Your task to perform on an android device: turn on improve location accuracy Image 0: 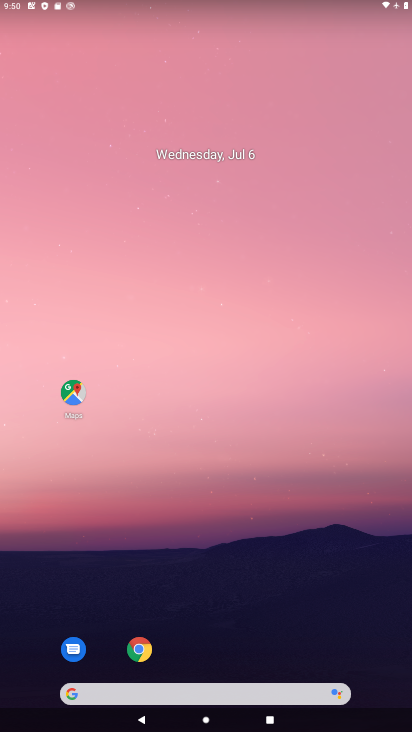
Step 0: drag from (381, 711) to (272, 119)
Your task to perform on an android device: turn on improve location accuracy Image 1: 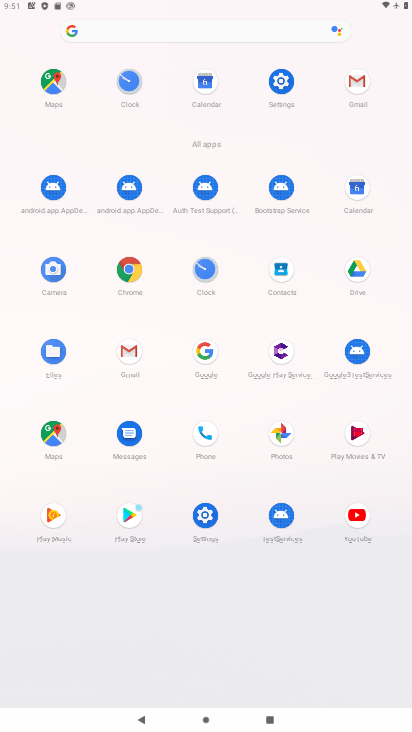
Step 1: click (286, 69)
Your task to perform on an android device: turn on improve location accuracy Image 2: 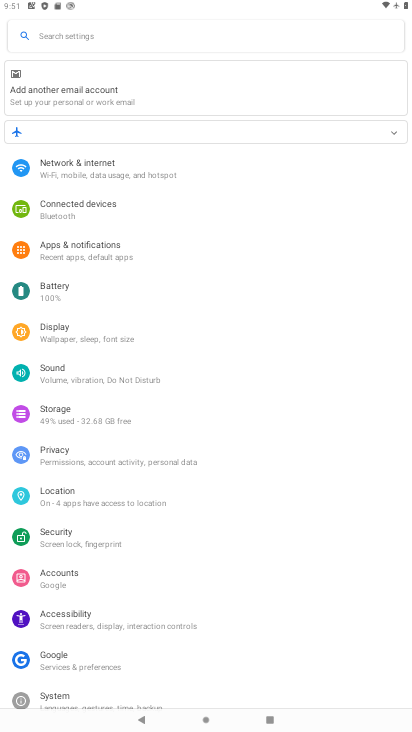
Step 2: click (59, 489)
Your task to perform on an android device: turn on improve location accuracy Image 3: 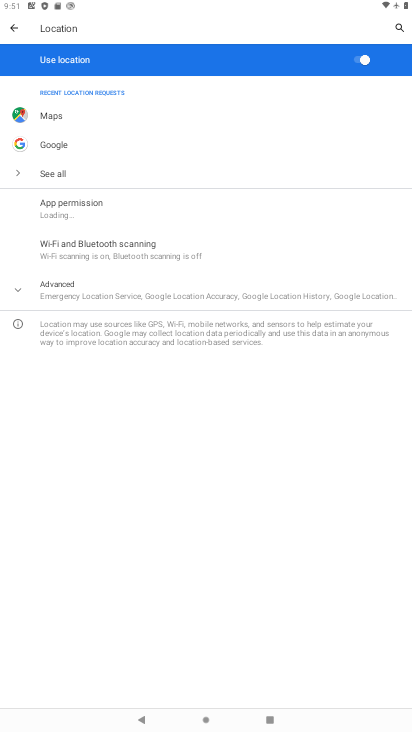
Step 3: click (19, 286)
Your task to perform on an android device: turn on improve location accuracy Image 4: 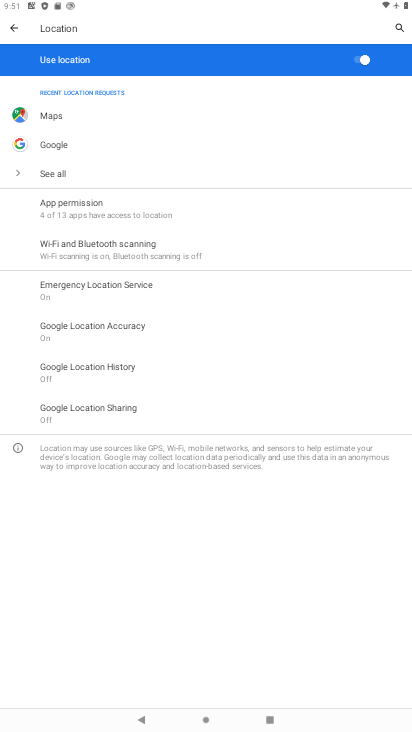
Step 4: click (86, 322)
Your task to perform on an android device: turn on improve location accuracy Image 5: 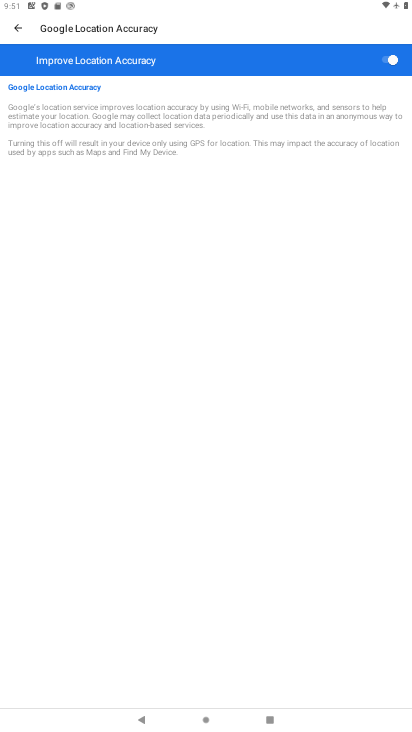
Step 5: task complete